Your task to perform on an android device: delete location history Image 0: 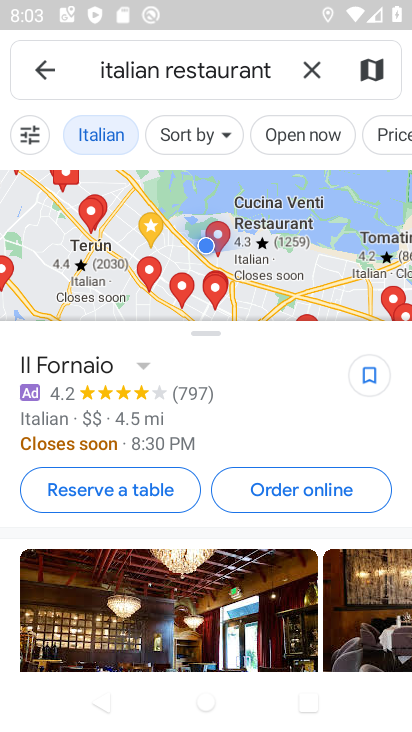
Step 0: press home button
Your task to perform on an android device: delete location history Image 1: 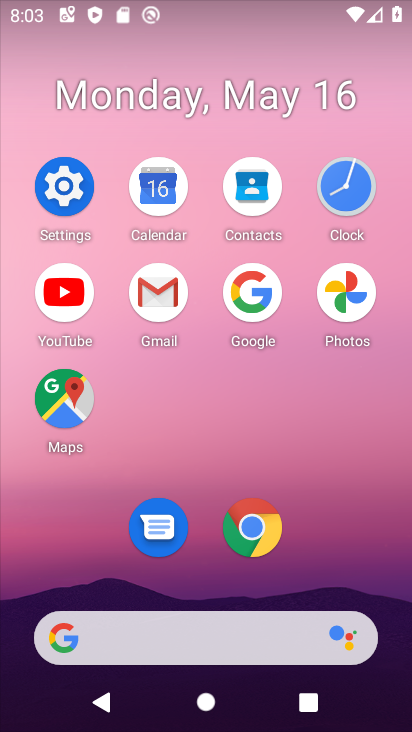
Step 1: click (59, 175)
Your task to perform on an android device: delete location history Image 2: 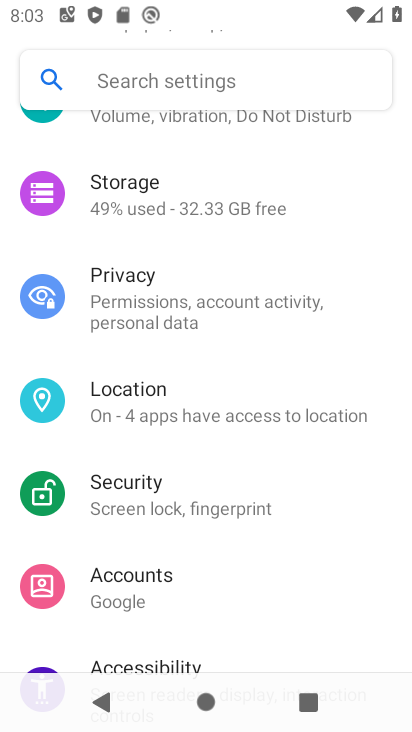
Step 2: drag from (300, 555) to (287, 169)
Your task to perform on an android device: delete location history Image 3: 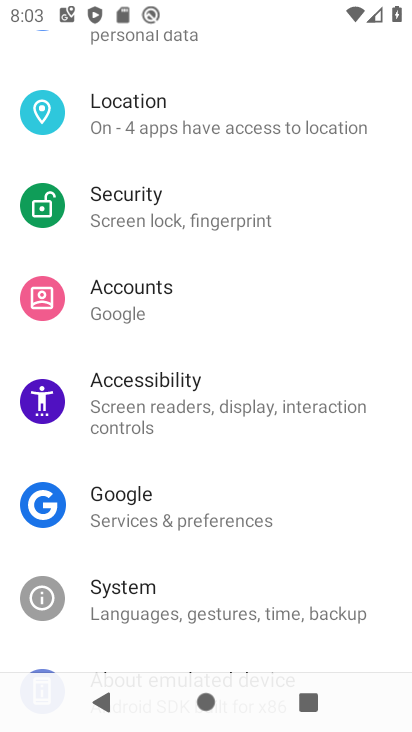
Step 3: click (225, 144)
Your task to perform on an android device: delete location history Image 4: 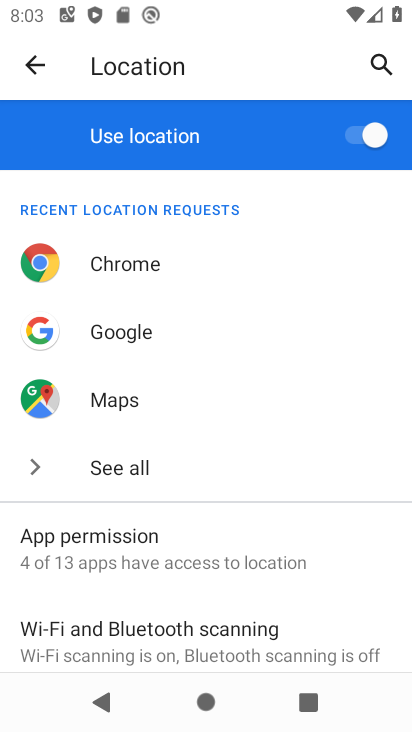
Step 4: drag from (227, 603) to (260, 189)
Your task to perform on an android device: delete location history Image 5: 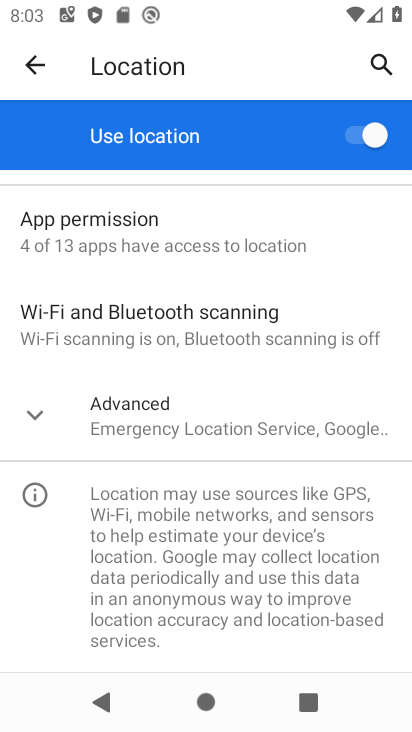
Step 5: click (234, 411)
Your task to perform on an android device: delete location history Image 6: 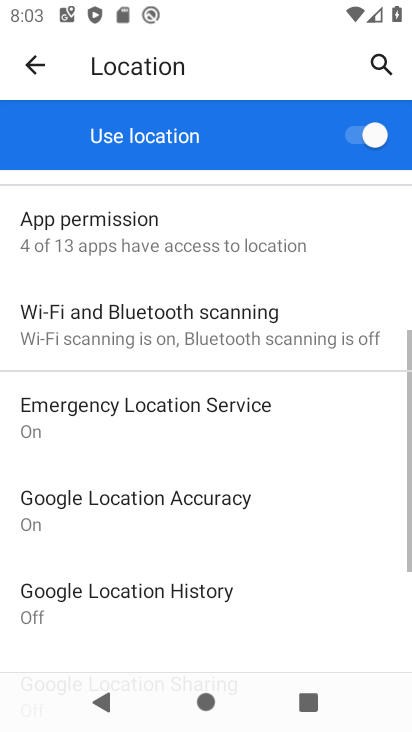
Step 6: drag from (291, 551) to (263, 137)
Your task to perform on an android device: delete location history Image 7: 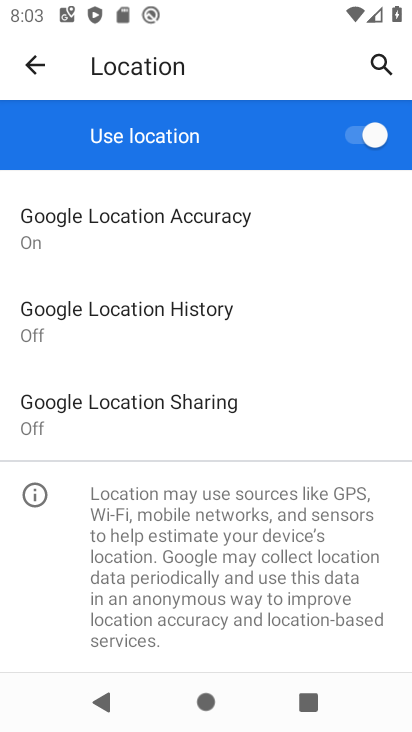
Step 7: click (208, 305)
Your task to perform on an android device: delete location history Image 8: 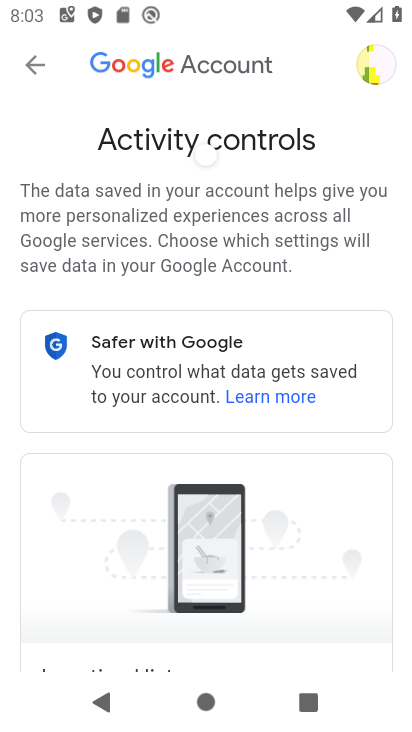
Step 8: drag from (270, 582) to (313, 90)
Your task to perform on an android device: delete location history Image 9: 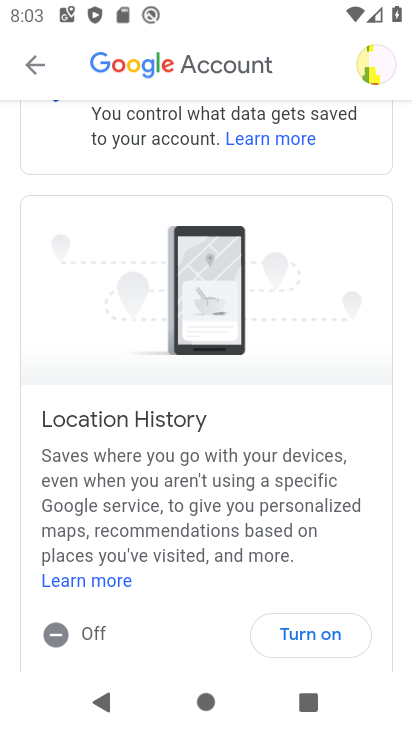
Step 9: drag from (271, 568) to (249, 154)
Your task to perform on an android device: delete location history Image 10: 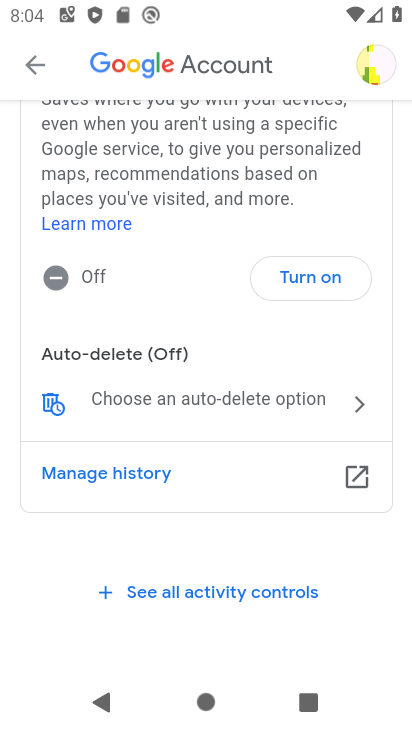
Step 10: drag from (237, 509) to (250, 189)
Your task to perform on an android device: delete location history Image 11: 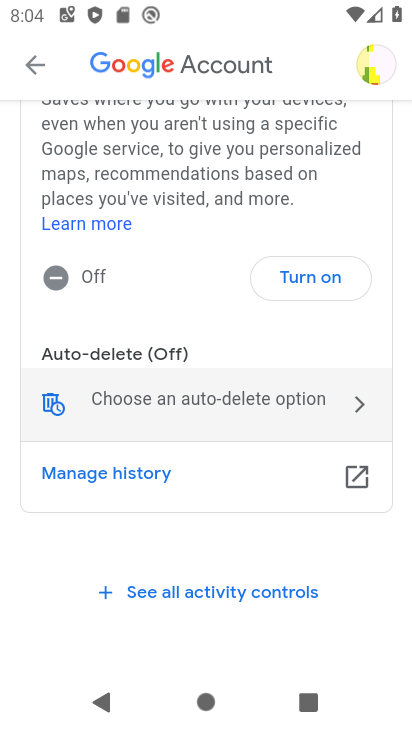
Step 11: click (277, 404)
Your task to perform on an android device: delete location history Image 12: 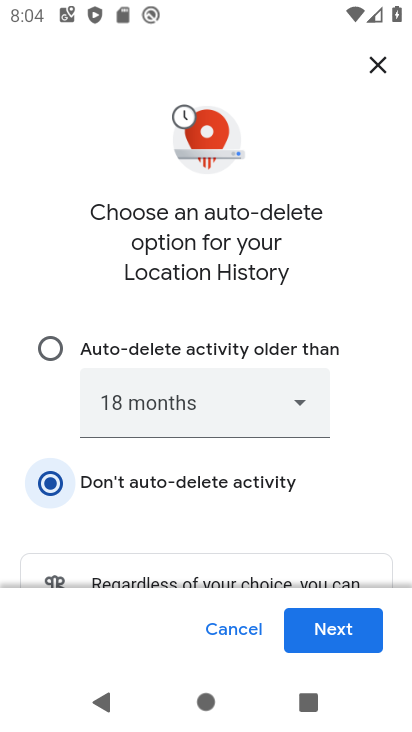
Step 12: drag from (301, 536) to (344, 130)
Your task to perform on an android device: delete location history Image 13: 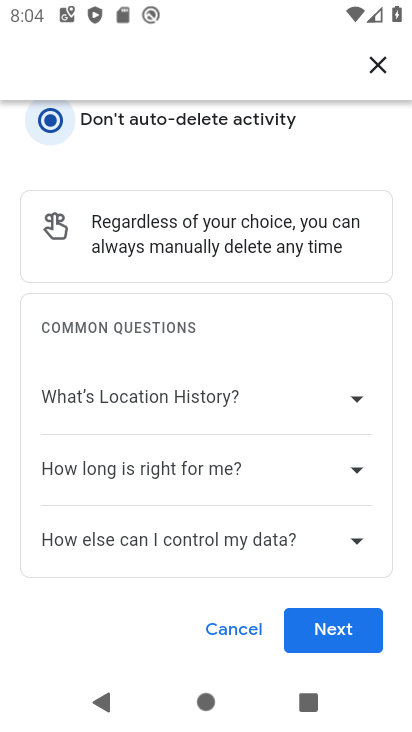
Step 13: drag from (272, 456) to (248, 93)
Your task to perform on an android device: delete location history Image 14: 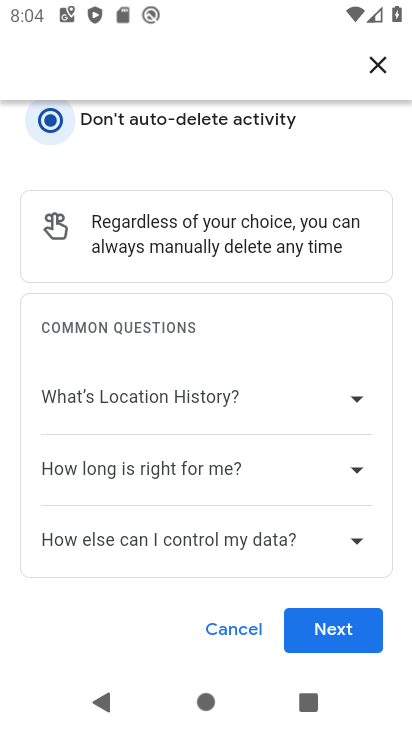
Step 14: click (354, 640)
Your task to perform on an android device: delete location history Image 15: 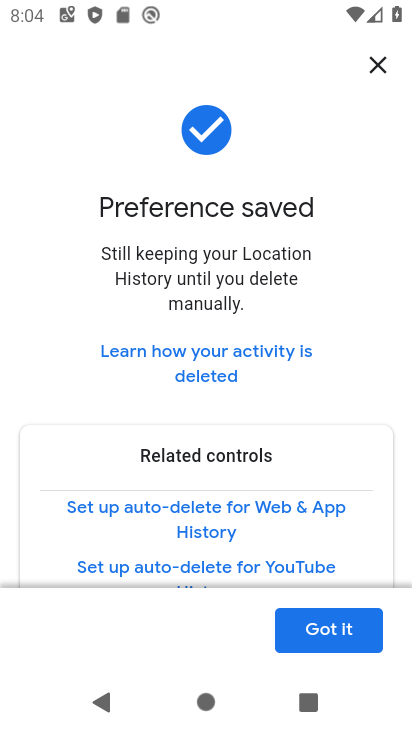
Step 15: click (359, 617)
Your task to perform on an android device: delete location history Image 16: 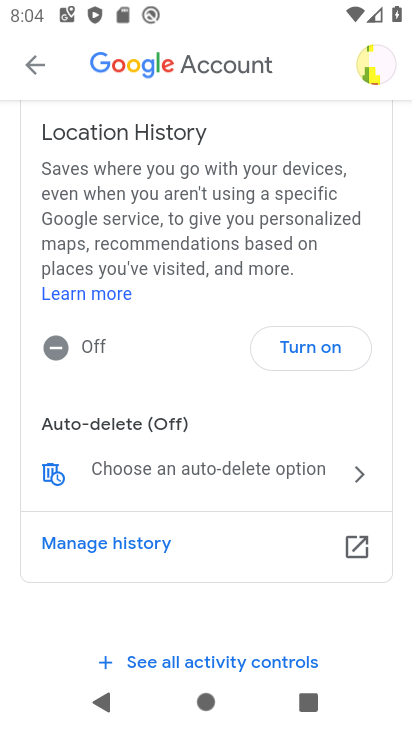
Step 16: task complete